Your task to perform on an android device: What is the recent news? Image 0: 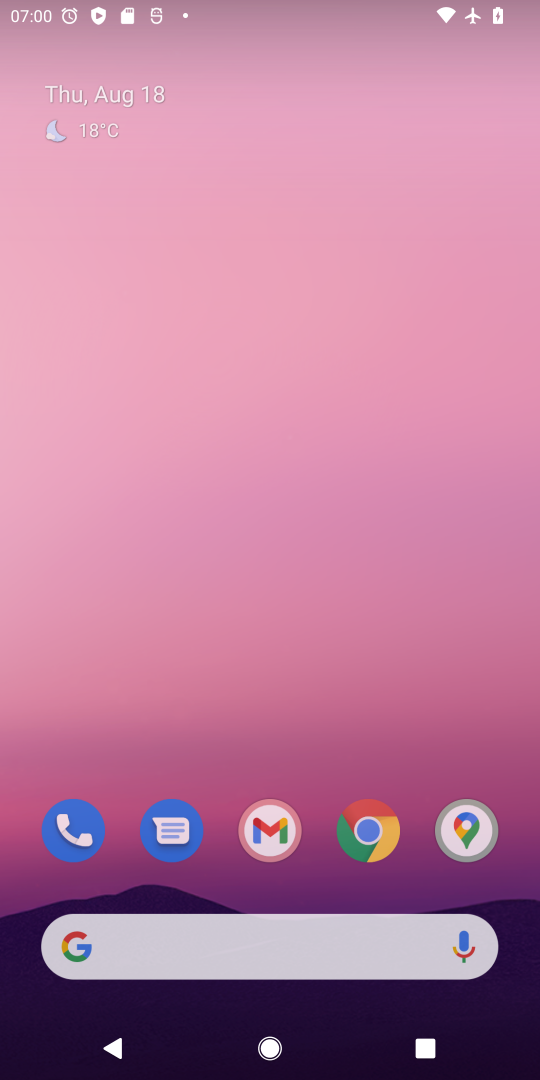
Step 0: press home button
Your task to perform on an android device: What is the recent news? Image 1: 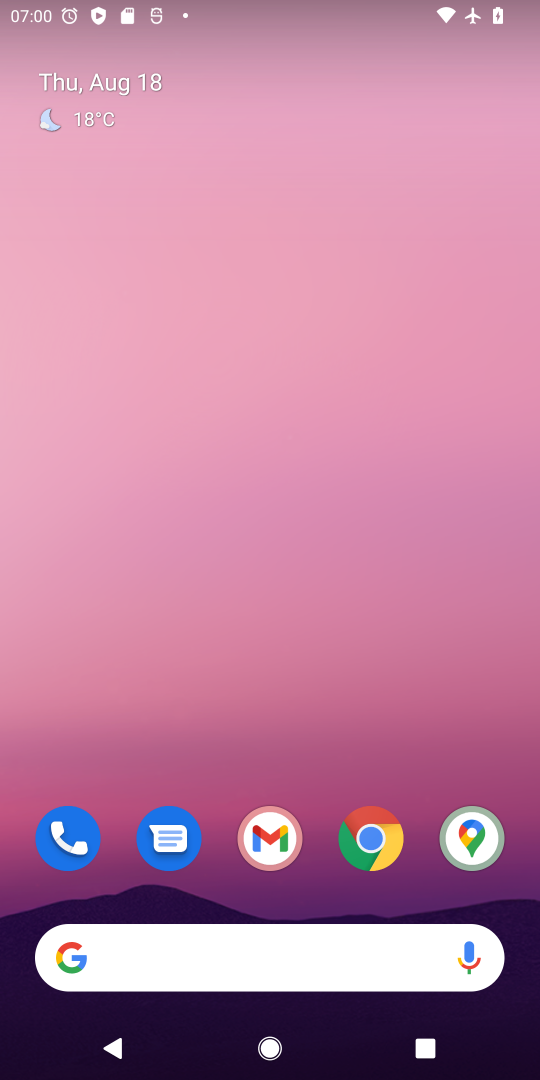
Step 1: click (76, 964)
Your task to perform on an android device: What is the recent news? Image 2: 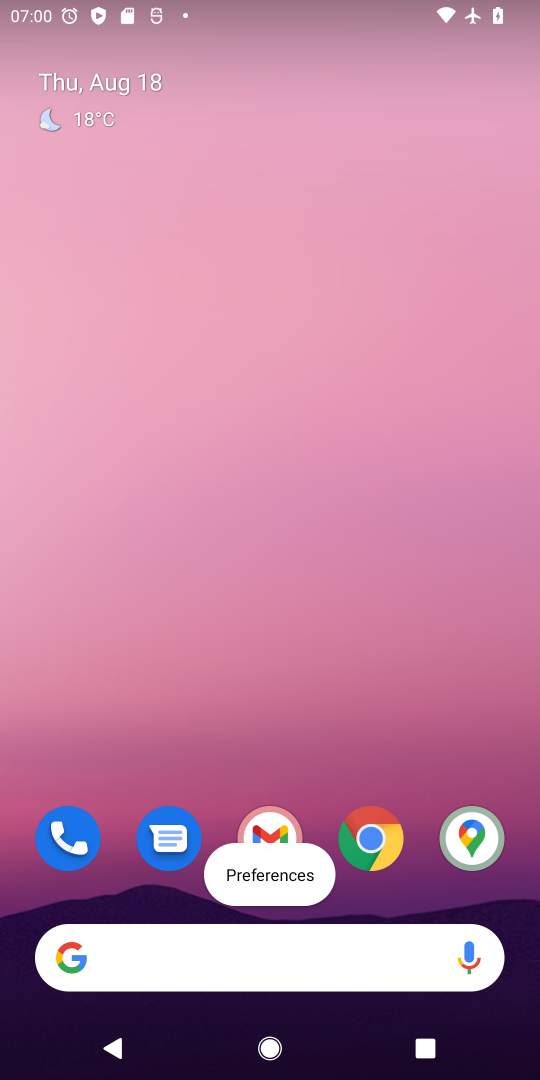
Step 2: click (66, 966)
Your task to perform on an android device: What is the recent news? Image 3: 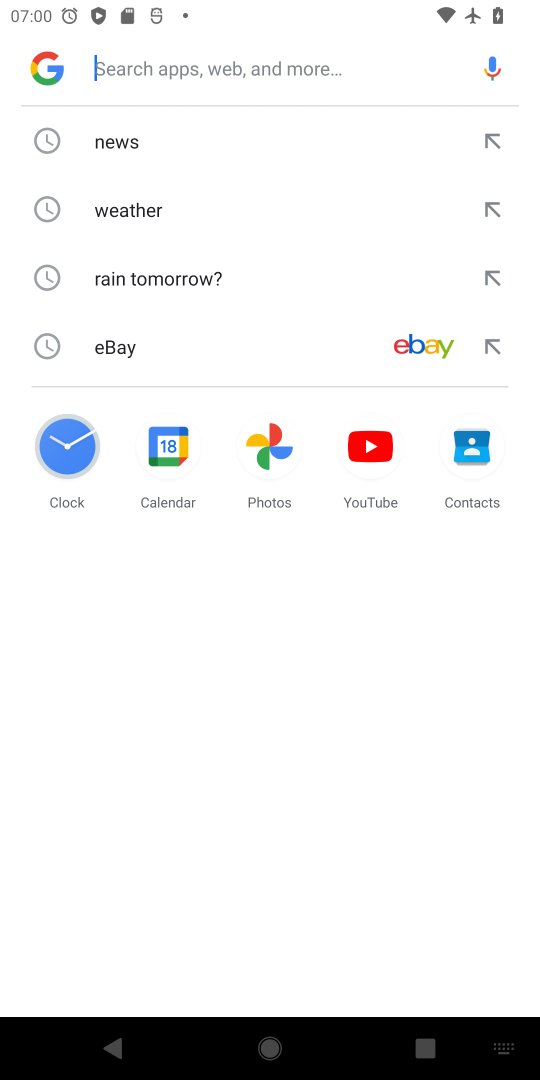
Step 3: type "recent news?"
Your task to perform on an android device: What is the recent news? Image 4: 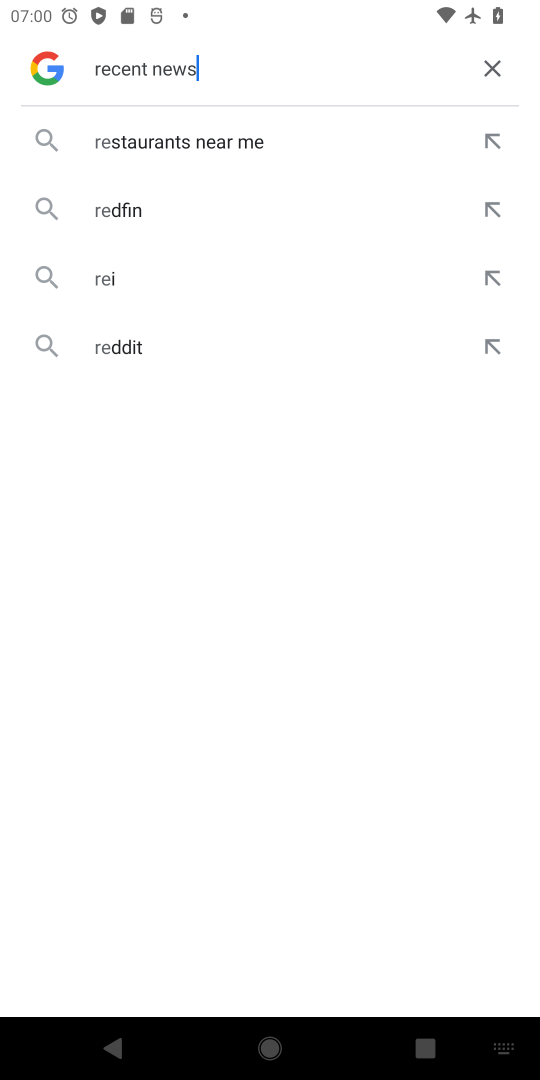
Step 4: press enter
Your task to perform on an android device: What is the recent news? Image 5: 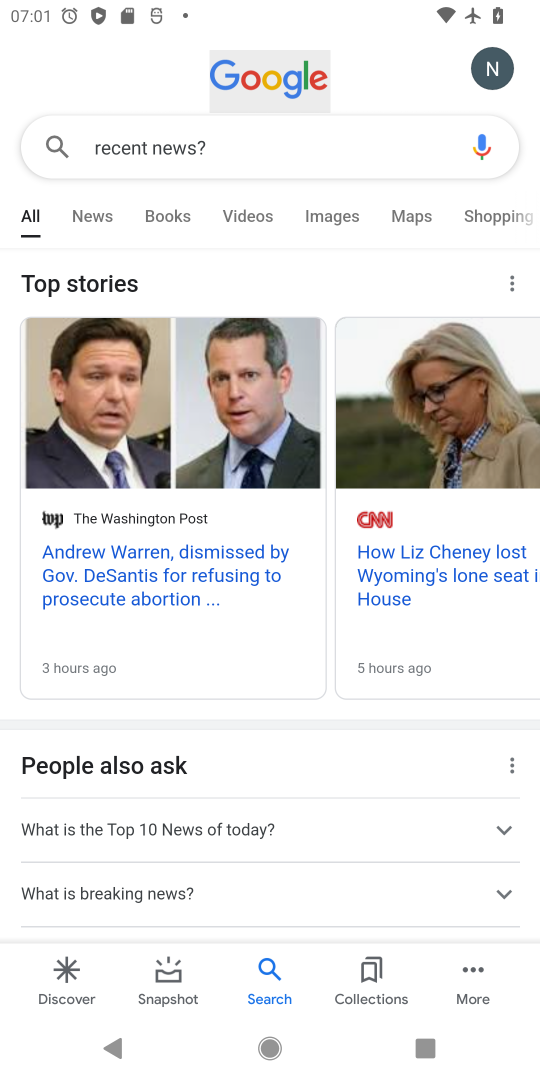
Step 5: task complete